Your task to perform on an android device: Open the web browser Image 0: 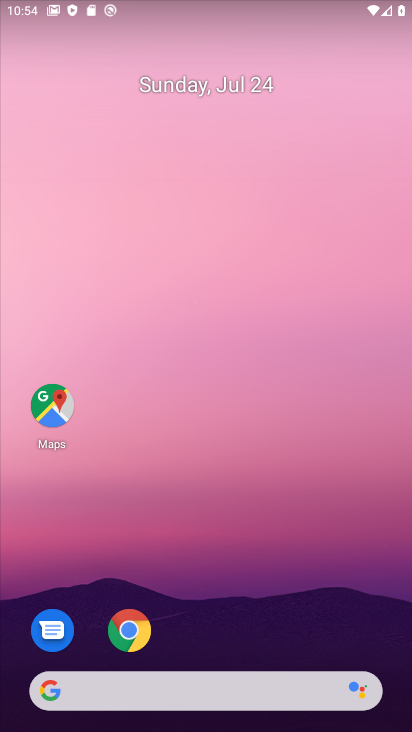
Step 0: click (136, 628)
Your task to perform on an android device: Open the web browser Image 1: 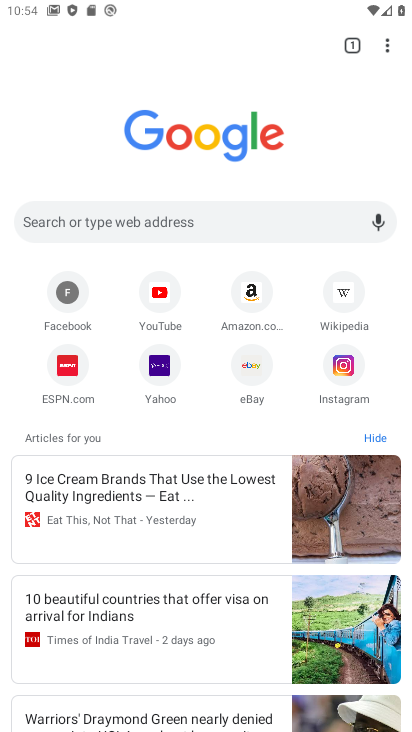
Step 1: task complete